Your task to perform on an android device: Go to display settings Image 0: 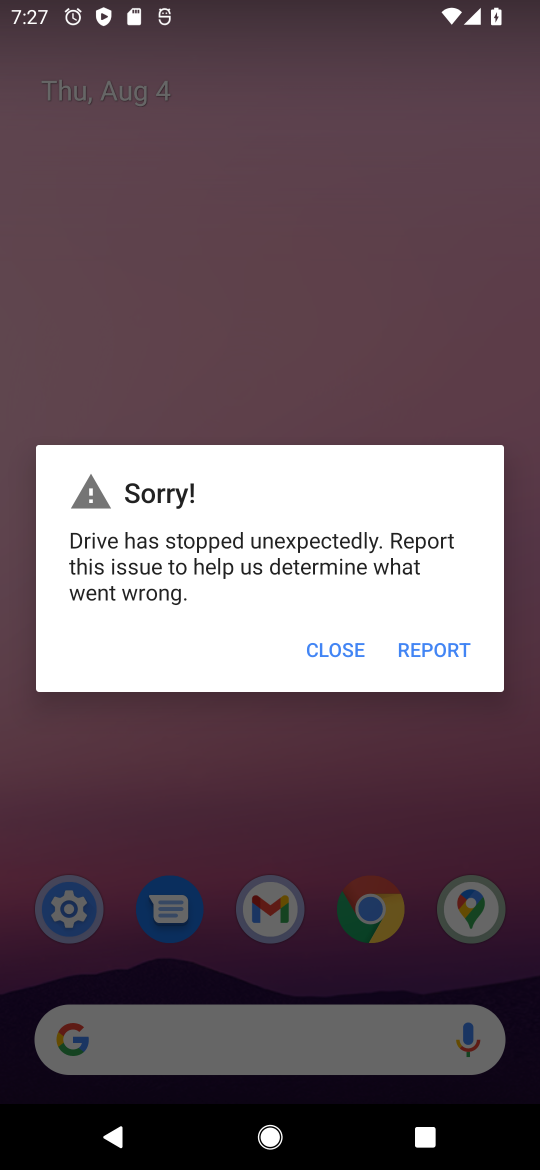
Step 0: click (322, 640)
Your task to perform on an android device: Go to display settings Image 1: 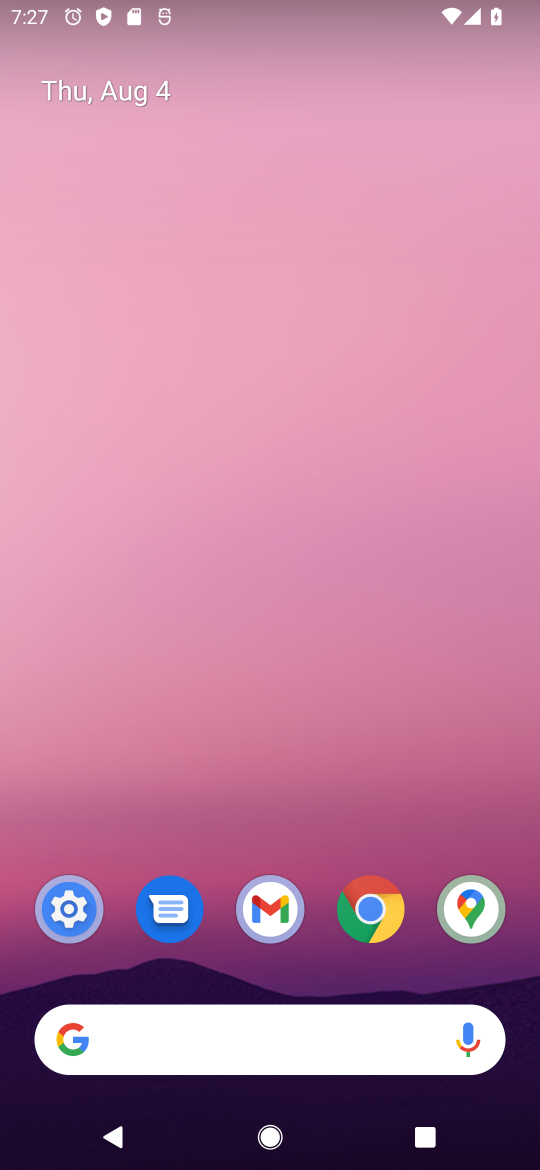
Step 1: drag from (251, 737) to (261, 43)
Your task to perform on an android device: Go to display settings Image 2: 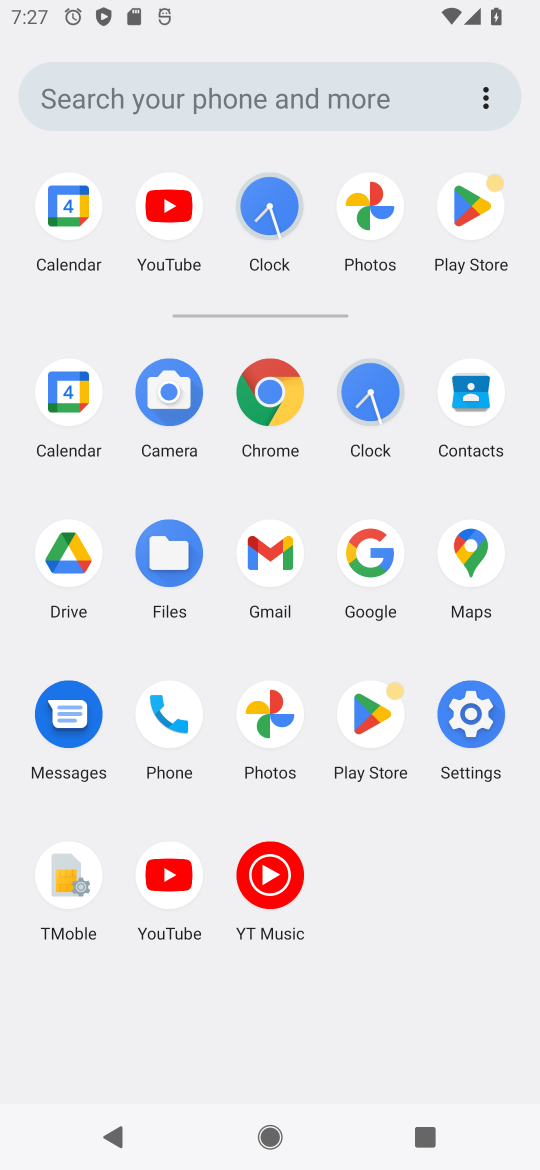
Step 2: click (483, 696)
Your task to perform on an android device: Go to display settings Image 3: 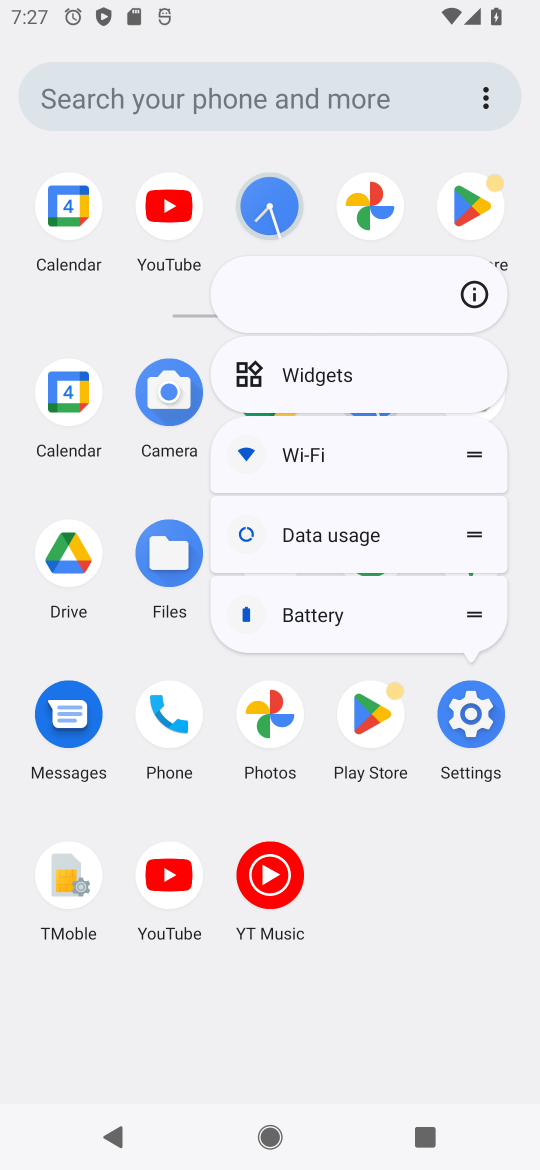
Step 3: click (481, 718)
Your task to perform on an android device: Go to display settings Image 4: 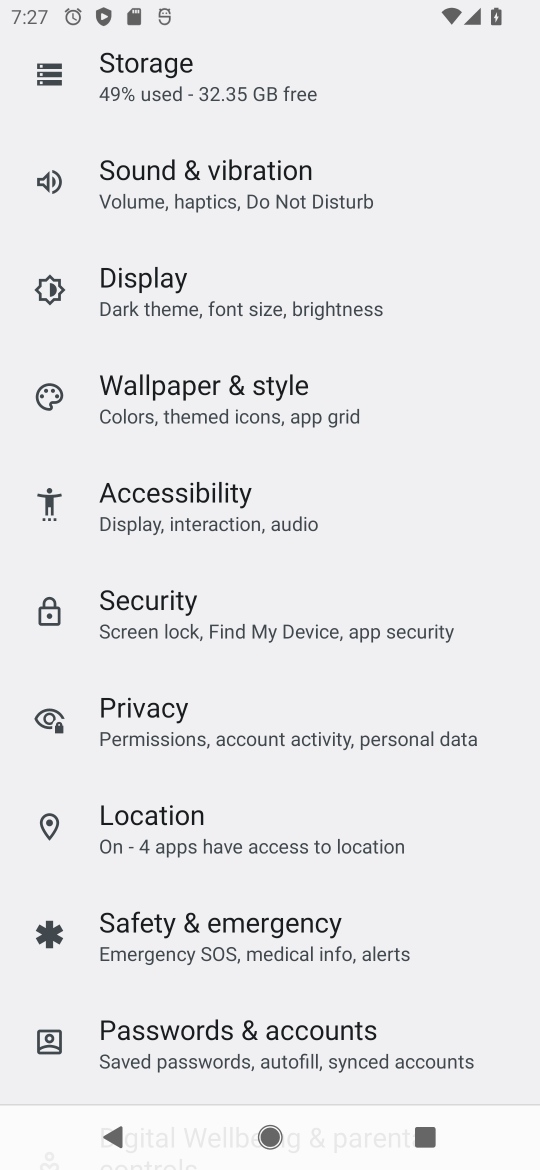
Step 4: click (150, 307)
Your task to perform on an android device: Go to display settings Image 5: 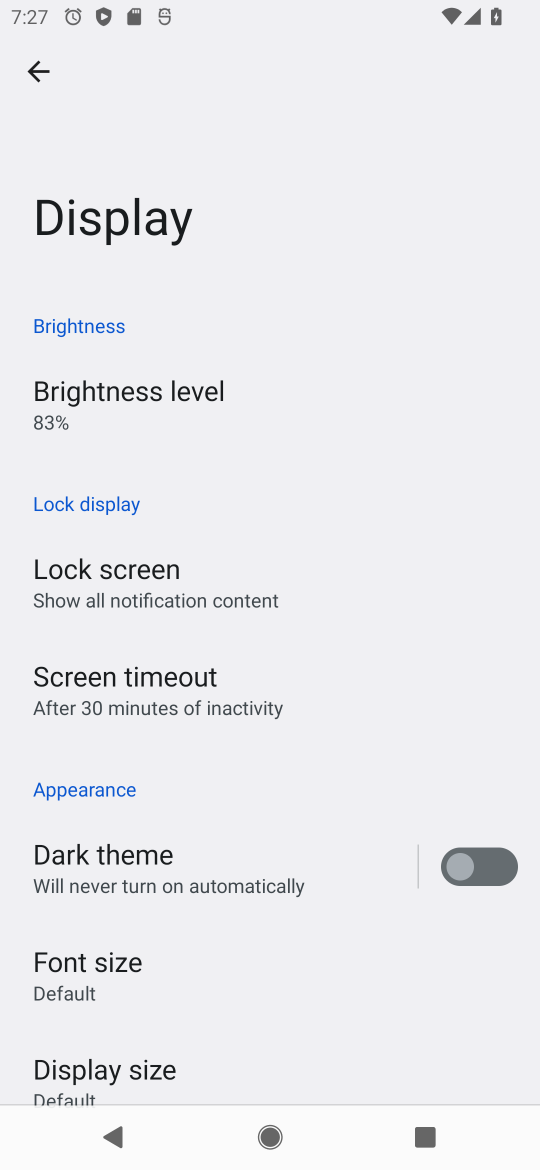
Step 5: task complete